Your task to perform on an android device: see sites visited before in the chrome app Image 0: 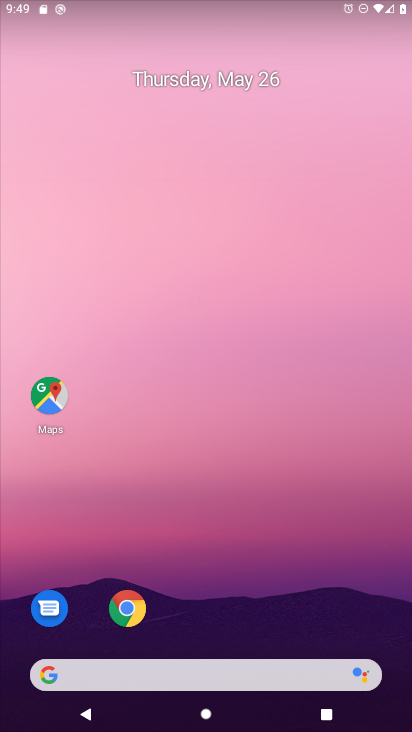
Step 0: click (137, 608)
Your task to perform on an android device: see sites visited before in the chrome app Image 1: 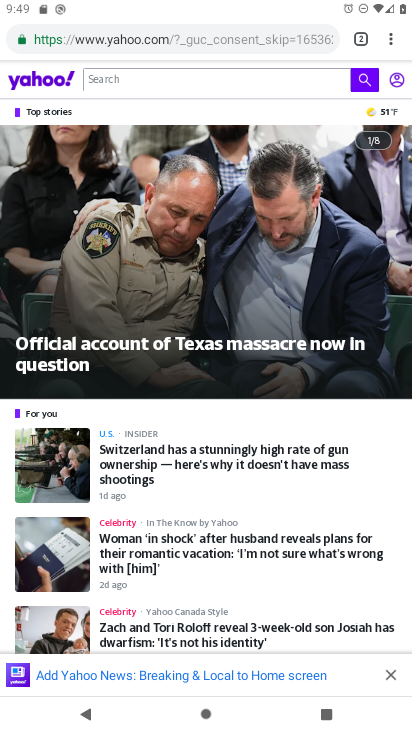
Step 1: click (388, 32)
Your task to perform on an android device: see sites visited before in the chrome app Image 2: 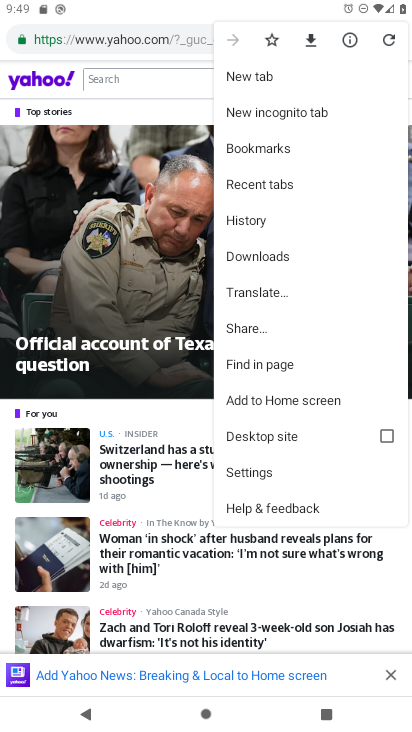
Step 2: click (277, 224)
Your task to perform on an android device: see sites visited before in the chrome app Image 3: 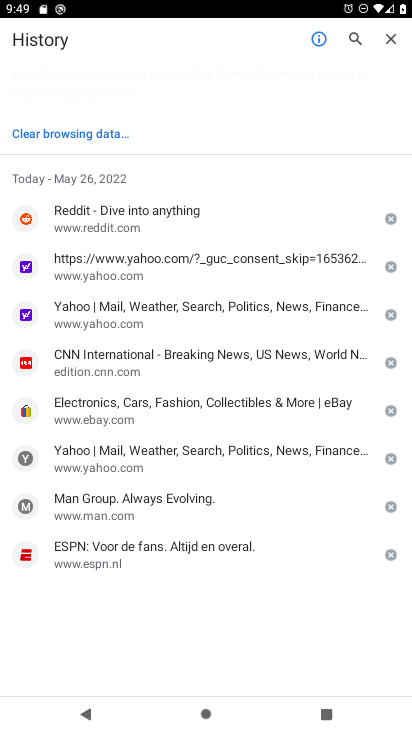
Step 3: task complete